Your task to perform on an android device: turn on the 12-hour format for clock Image 0: 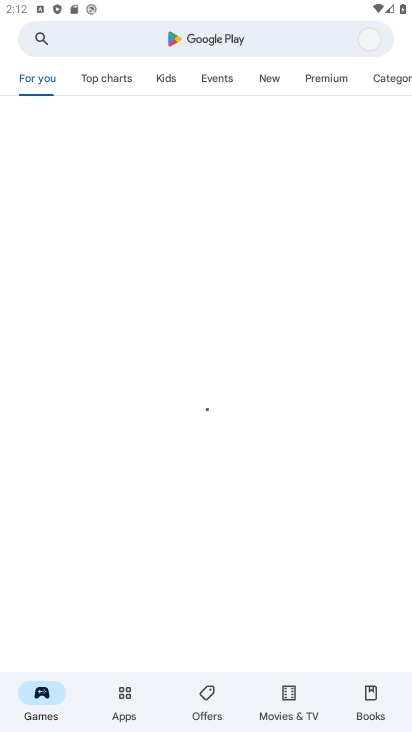
Step 0: press back button
Your task to perform on an android device: turn on the 12-hour format for clock Image 1: 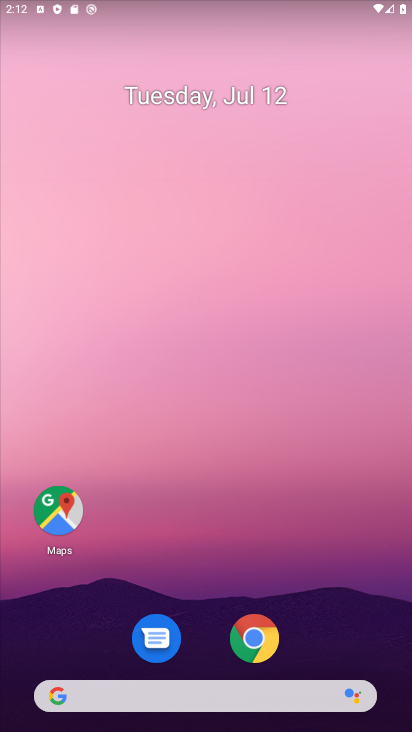
Step 1: drag from (195, 613) to (297, 17)
Your task to perform on an android device: turn on the 12-hour format for clock Image 2: 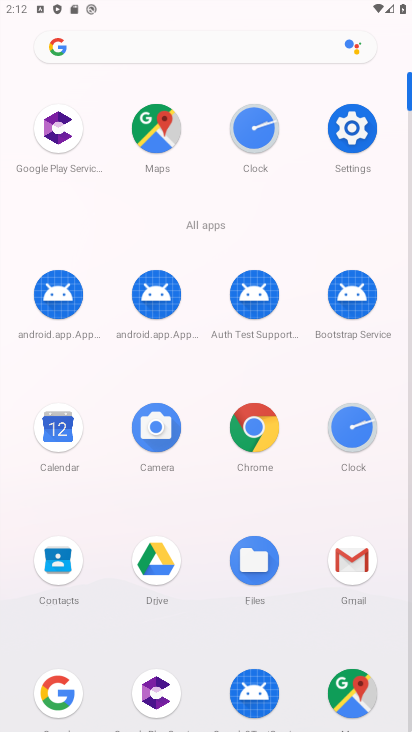
Step 2: click (247, 121)
Your task to perform on an android device: turn on the 12-hour format for clock Image 3: 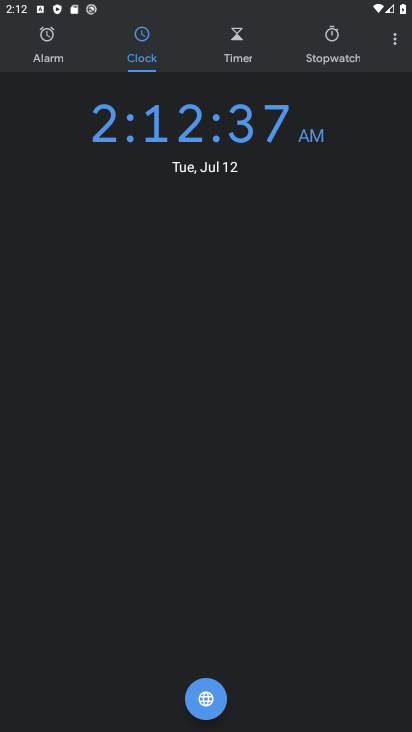
Step 3: click (391, 41)
Your task to perform on an android device: turn on the 12-hour format for clock Image 4: 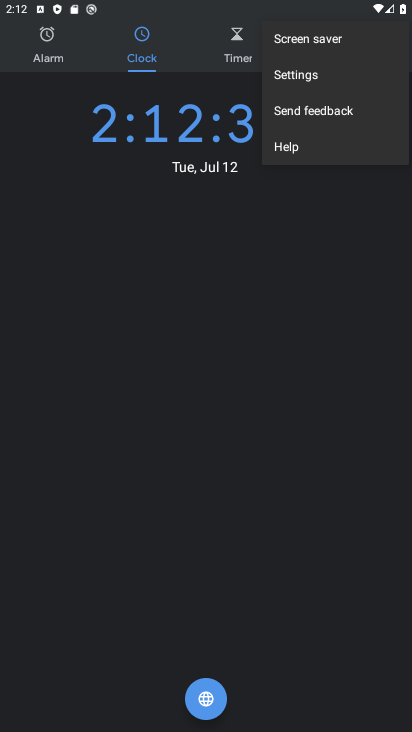
Step 4: click (279, 66)
Your task to perform on an android device: turn on the 12-hour format for clock Image 5: 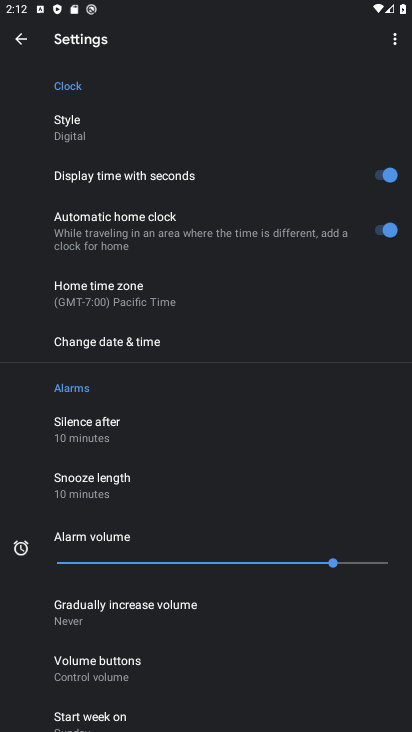
Step 5: click (176, 341)
Your task to perform on an android device: turn on the 12-hour format for clock Image 6: 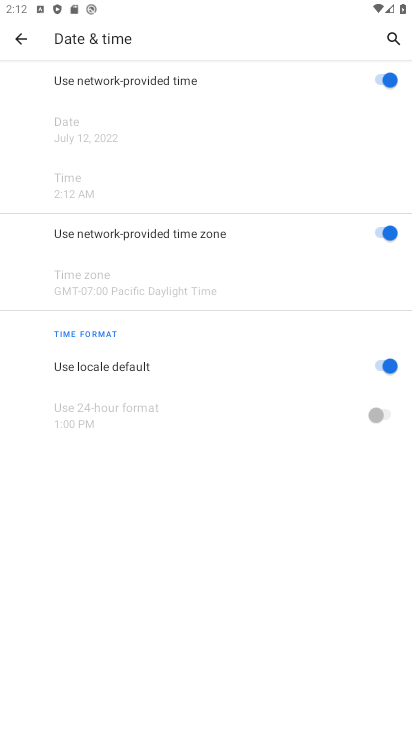
Step 6: task complete